Your task to perform on an android device: How do I get to the nearest T-Mobile Store? Image 0: 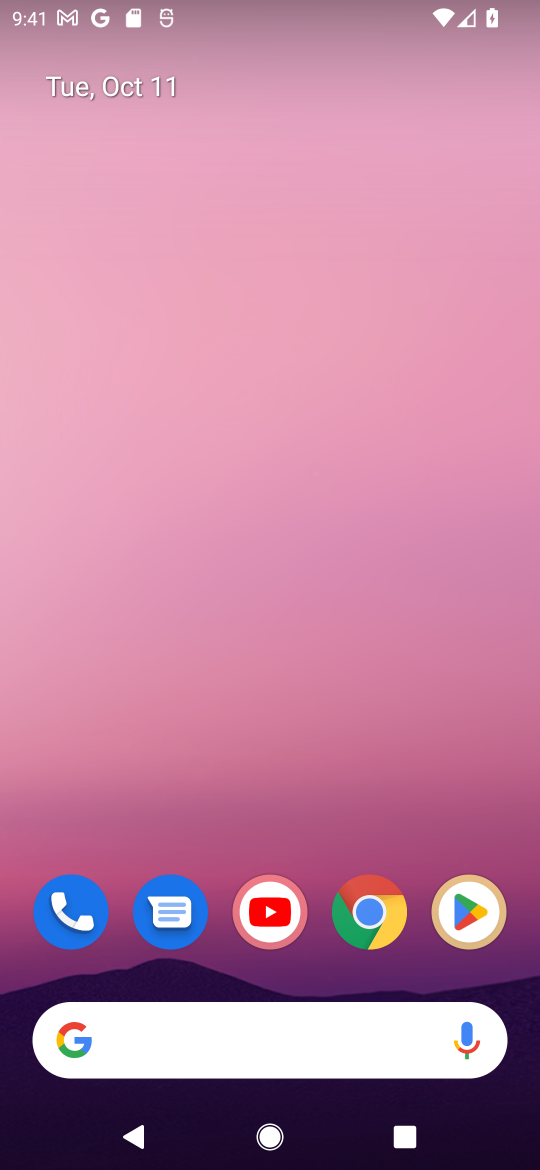
Step 0: click (363, 911)
Your task to perform on an android device: How do I get to the nearest T-Mobile Store? Image 1: 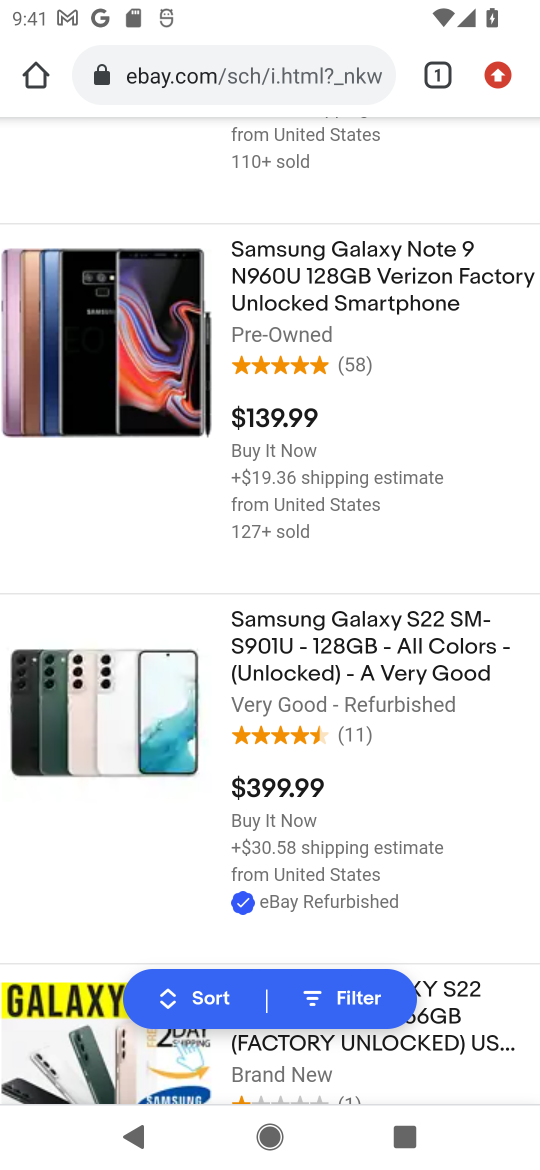
Step 1: click (239, 53)
Your task to perform on an android device: How do I get to the nearest T-Mobile Store? Image 2: 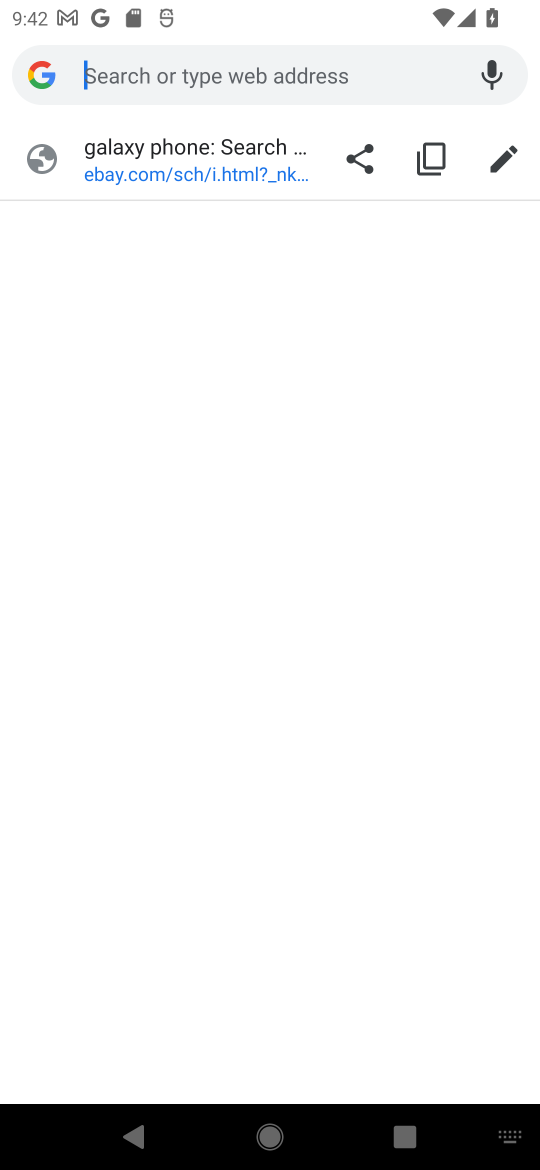
Step 2: type "nearest T- Mobile store?"
Your task to perform on an android device: How do I get to the nearest T-Mobile Store? Image 3: 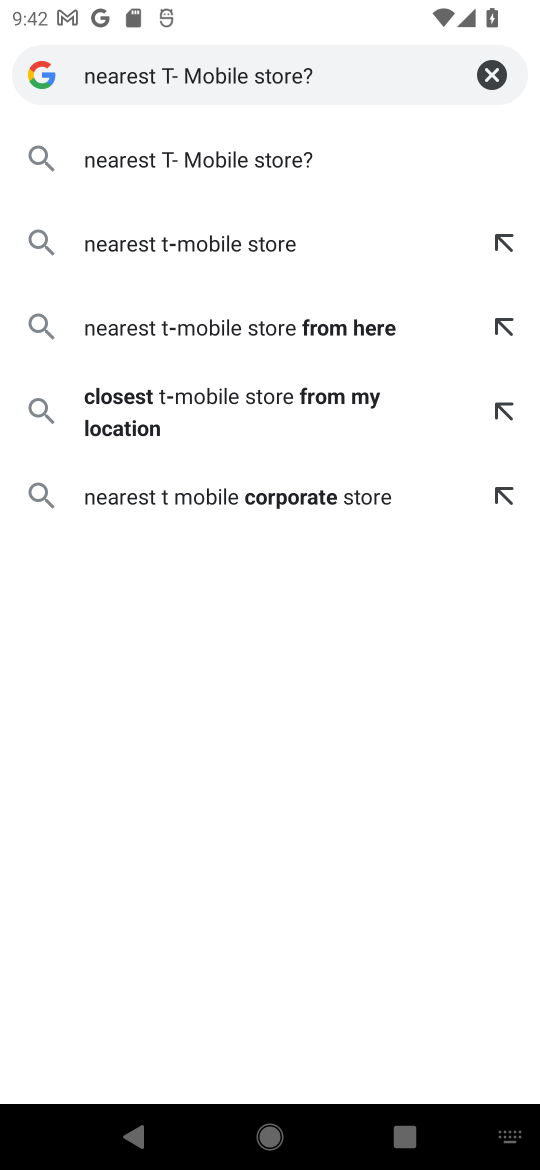
Step 3: click (161, 161)
Your task to perform on an android device: How do I get to the nearest T-Mobile Store? Image 4: 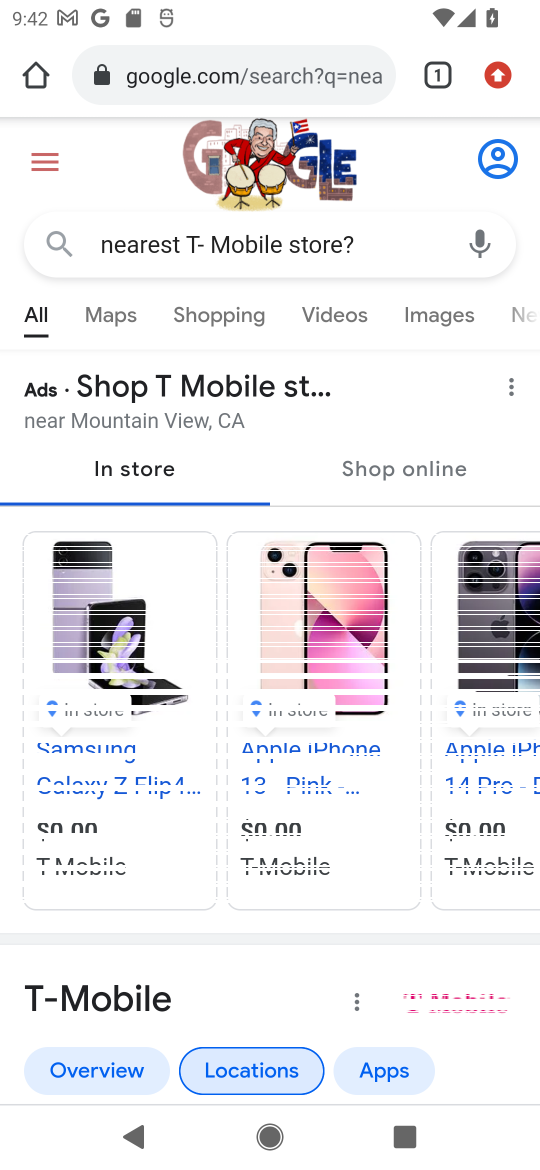
Step 4: drag from (287, 936) to (288, 476)
Your task to perform on an android device: How do I get to the nearest T-Mobile Store? Image 5: 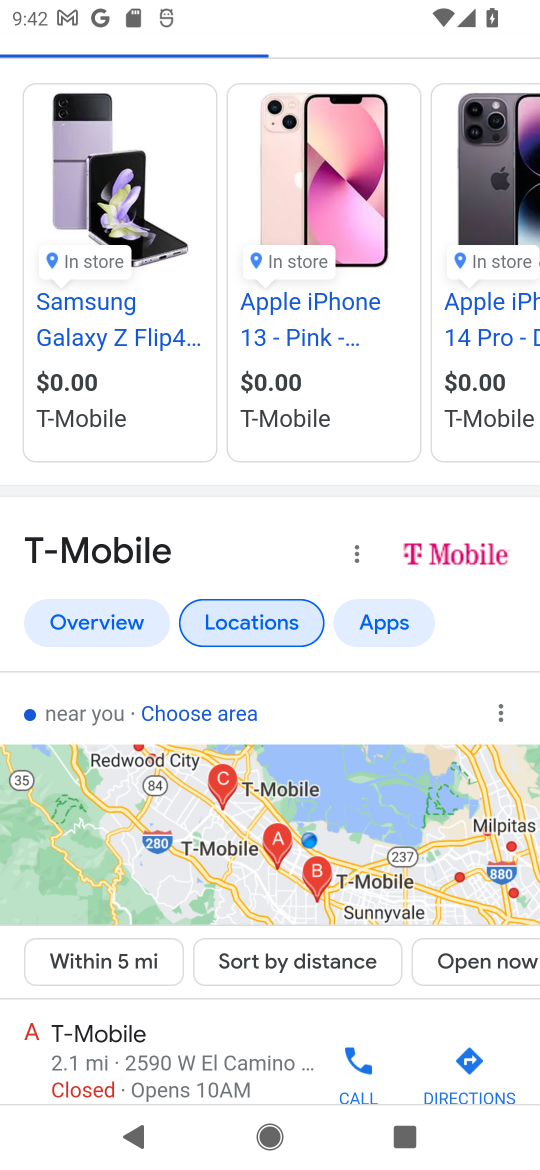
Step 5: drag from (306, 702) to (288, 246)
Your task to perform on an android device: How do I get to the nearest T-Mobile Store? Image 6: 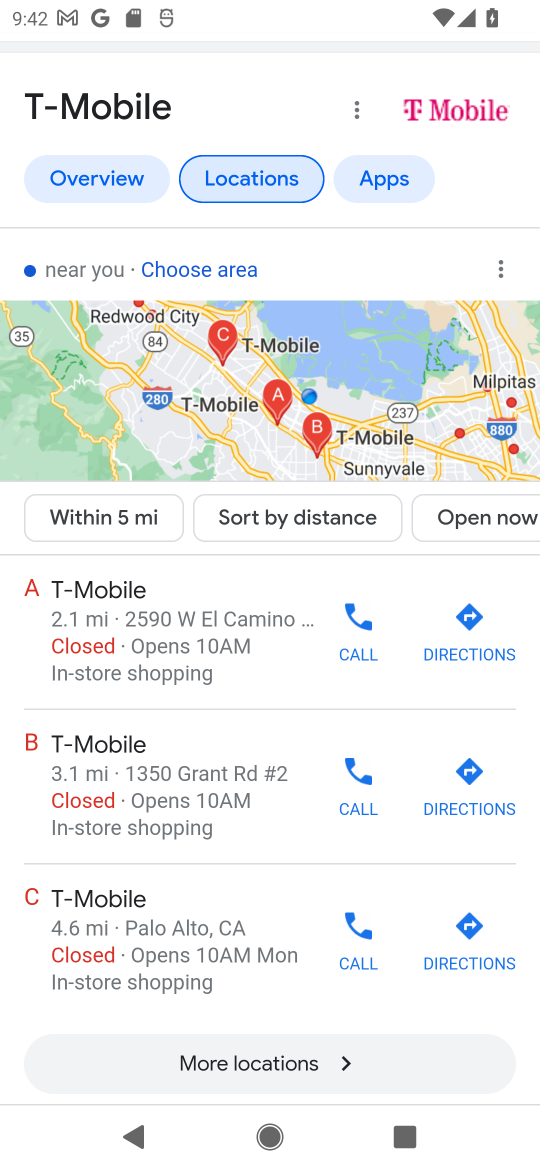
Step 6: drag from (207, 686) to (231, 475)
Your task to perform on an android device: How do I get to the nearest T-Mobile Store? Image 7: 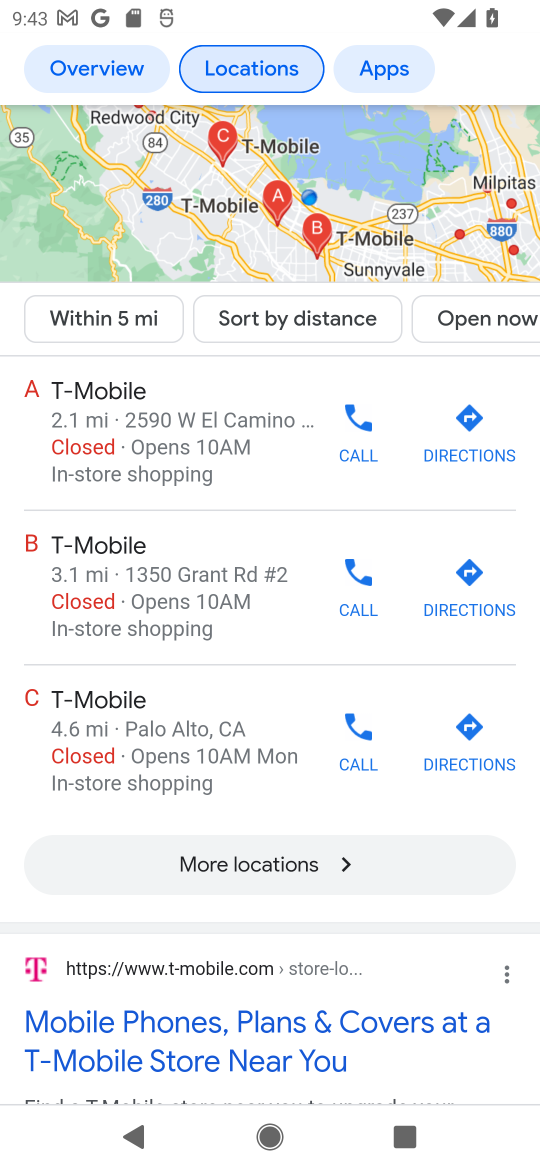
Step 7: click (123, 408)
Your task to perform on an android device: How do I get to the nearest T-Mobile Store? Image 8: 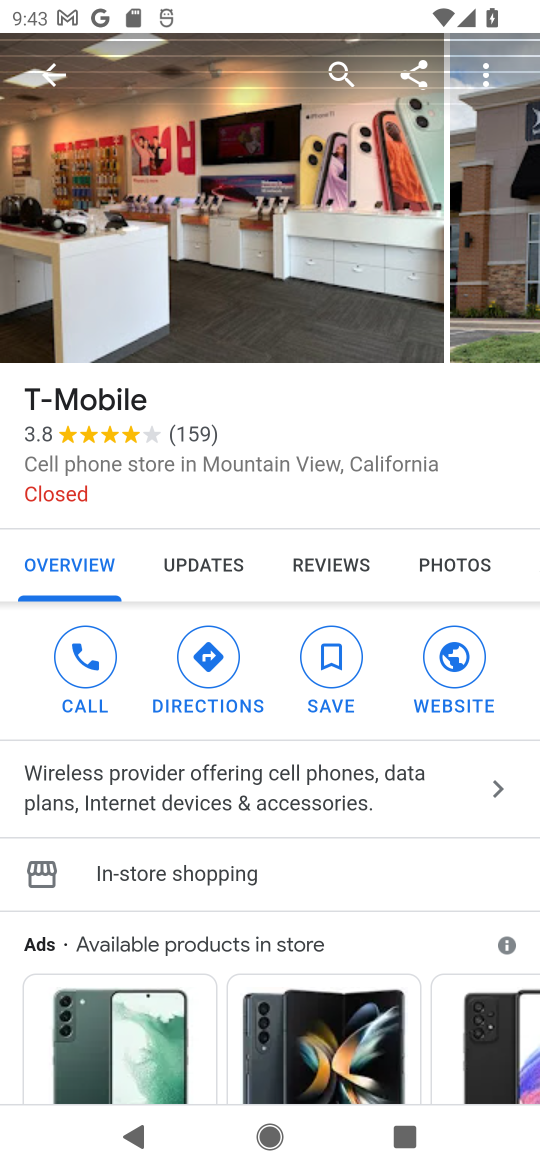
Step 8: task complete